Your task to perform on an android device: toggle notifications settings in the gmail app Image 0: 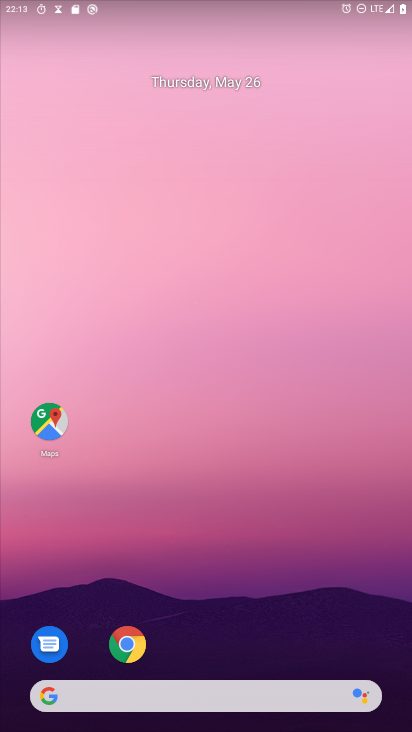
Step 0: drag from (197, 645) to (274, 193)
Your task to perform on an android device: toggle notifications settings in the gmail app Image 1: 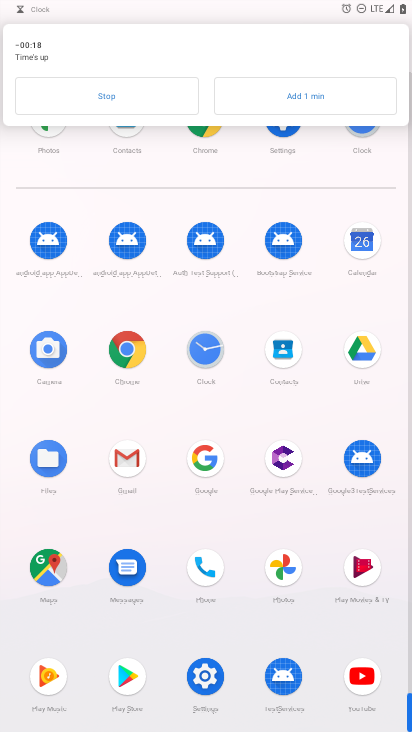
Step 1: click (121, 105)
Your task to perform on an android device: toggle notifications settings in the gmail app Image 2: 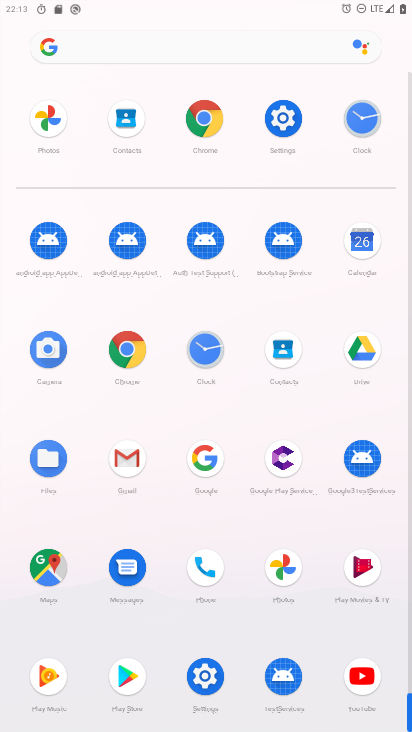
Step 2: click (133, 453)
Your task to perform on an android device: toggle notifications settings in the gmail app Image 3: 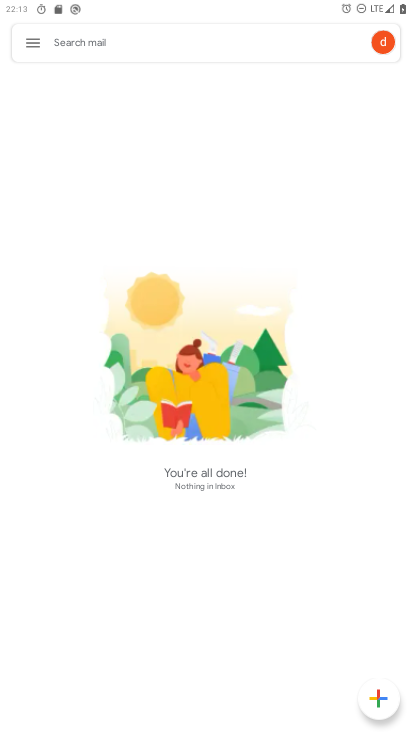
Step 3: click (35, 42)
Your task to perform on an android device: toggle notifications settings in the gmail app Image 4: 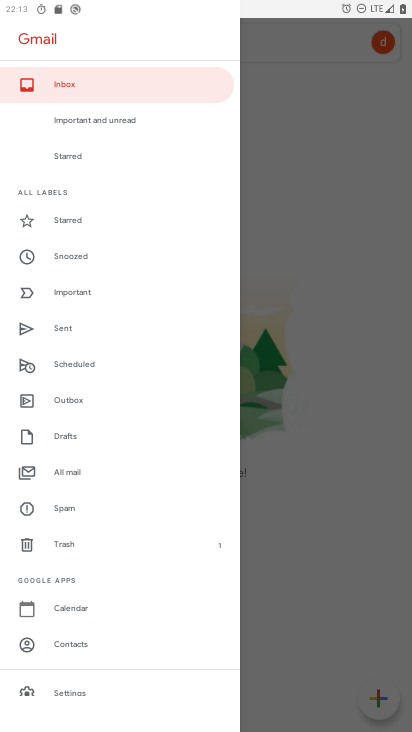
Step 4: drag from (96, 664) to (251, 108)
Your task to perform on an android device: toggle notifications settings in the gmail app Image 5: 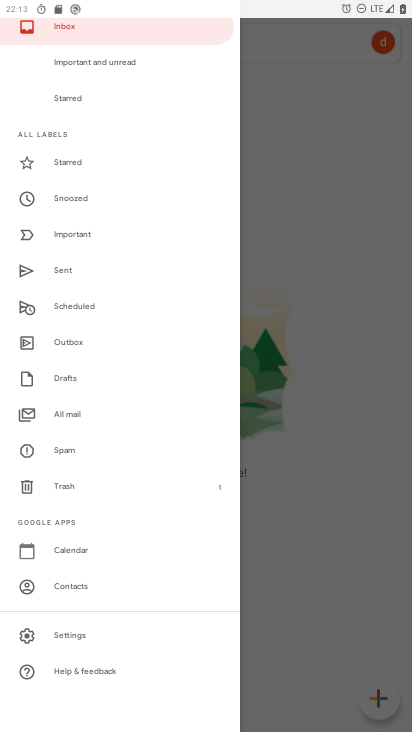
Step 5: click (74, 638)
Your task to perform on an android device: toggle notifications settings in the gmail app Image 6: 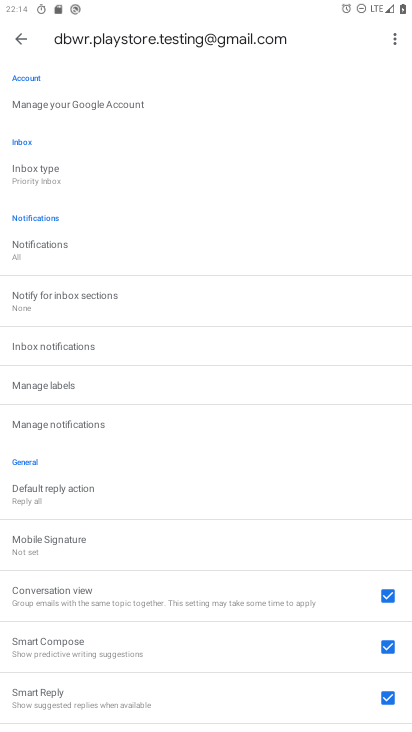
Step 6: click (109, 432)
Your task to perform on an android device: toggle notifications settings in the gmail app Image 7: 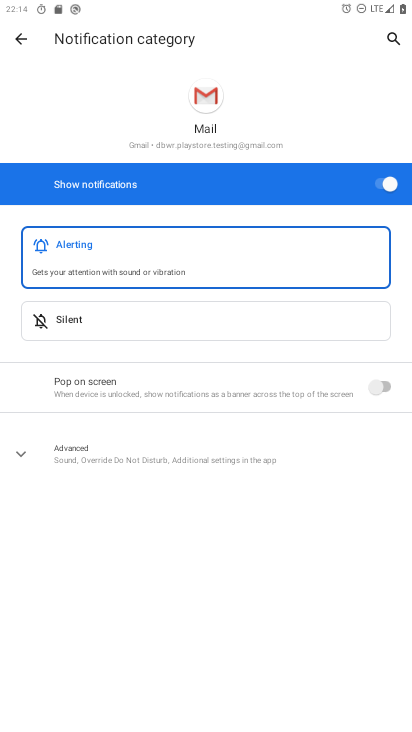
Step 7: click (387, 193)
Your task to perform on an android device: toggle notifications settings in the gmail app Image 8: 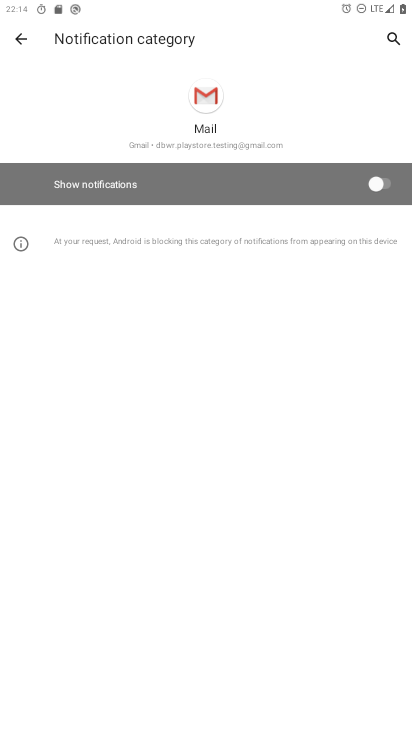
Step 8: task complete